Your task to perform on an android device: Open the calendar app, open the side menu, and click the "Day" option Image 0: 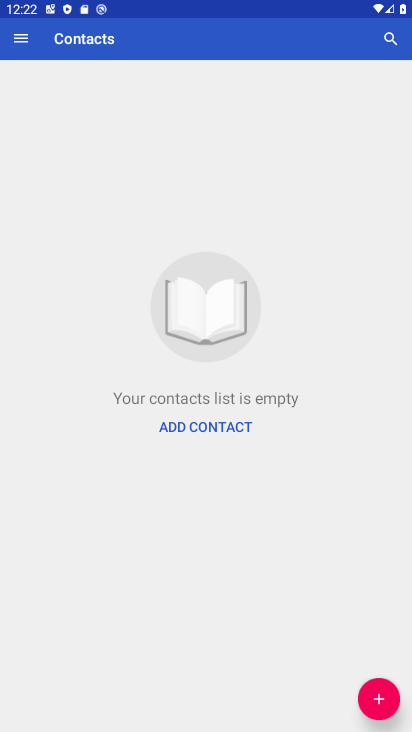
Step 0: press home button
Your task to perform on an android device: Open the calendar app, open the side menu, and click the "Day" option Image 1: 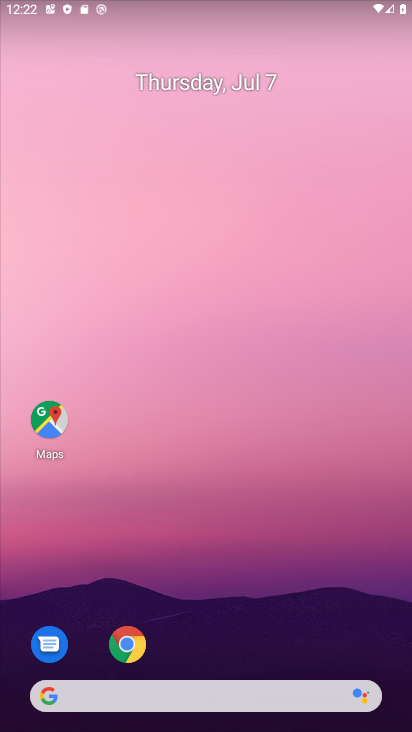
Step 1: drag from (236, 646) to (261, 151)
Your task to perform on an android device: Open the calendar app, open the side menu, and click the "Day" option Image 2: 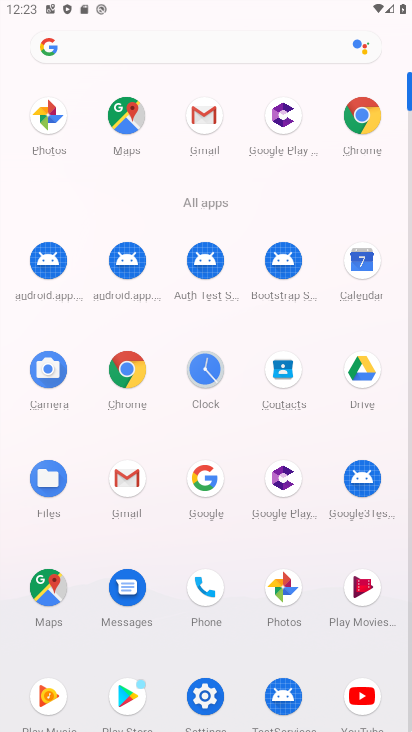
Step 2: click (367, 258)
Your task to perform on an android device: Open the calendar app, open the side menu, and click the "Day" option Image 3: 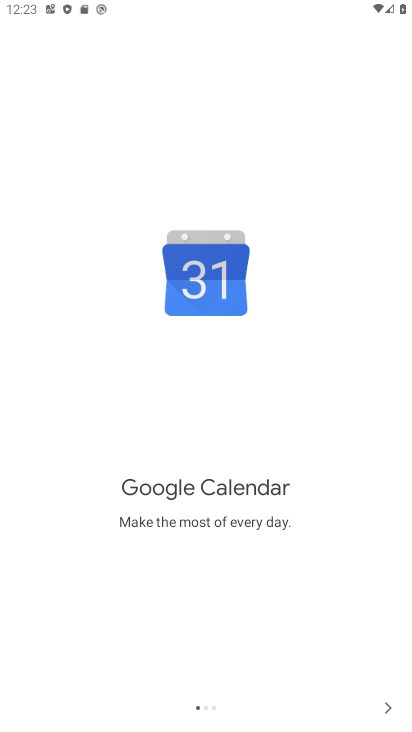
Step 3: click (382, 701)
Your task to perform on an android device: Open the calendar app, open the side menu, and click the "Day" option Image 4: 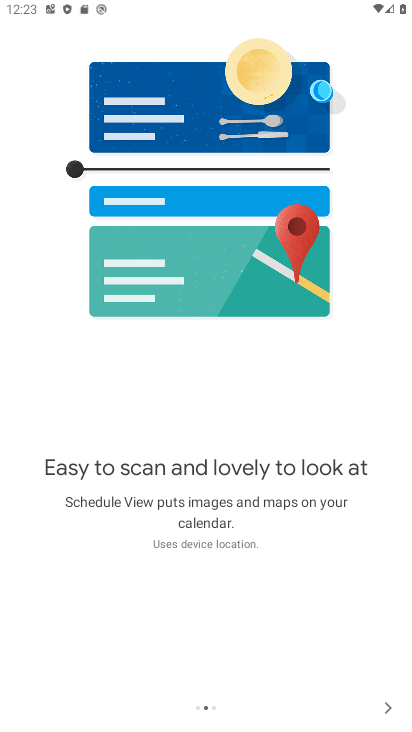
Step 4: click (382, 701)
Your task to perform on an android device: Open the calendar app, open the side menu, and click the "Day" option Image 5: 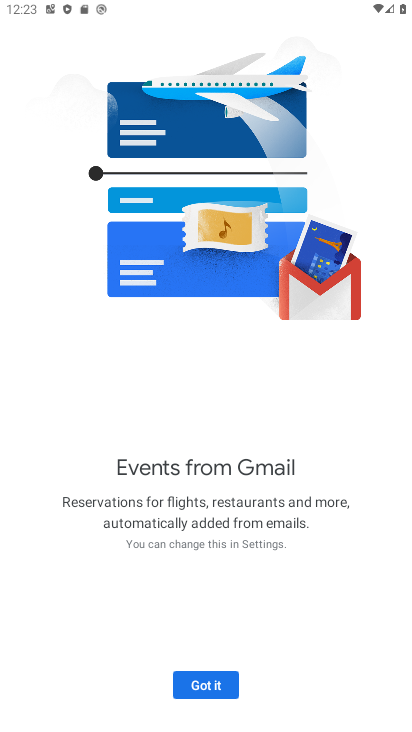
Step 5: click (227, 678)
Your task to perform on an android device: Open the calendar app, open the side menu, and click the "Day" option Image 6: 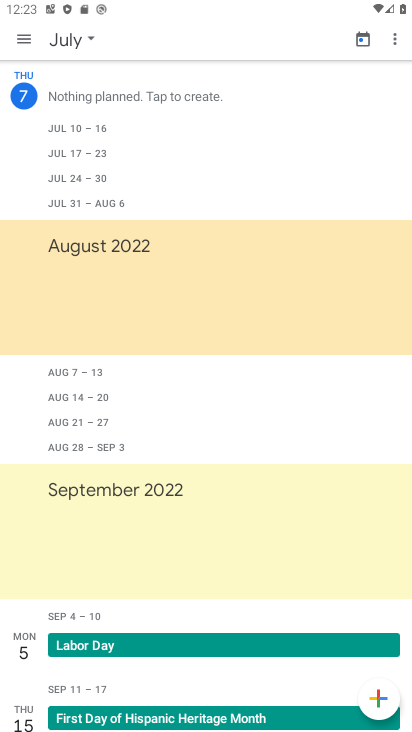
Step 6: click (24, 43)
Your task to perform on an android device: Open the calendar app, open the side menu, and click the "Day" option Image 7: 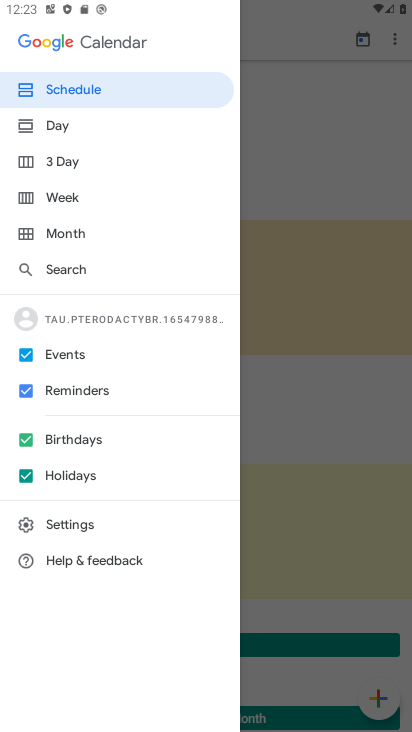
Step 7: click (47, 119)
Your task to perform on an android device: Open the calendar app, open the side menu, and click the "Day" option Image 8: 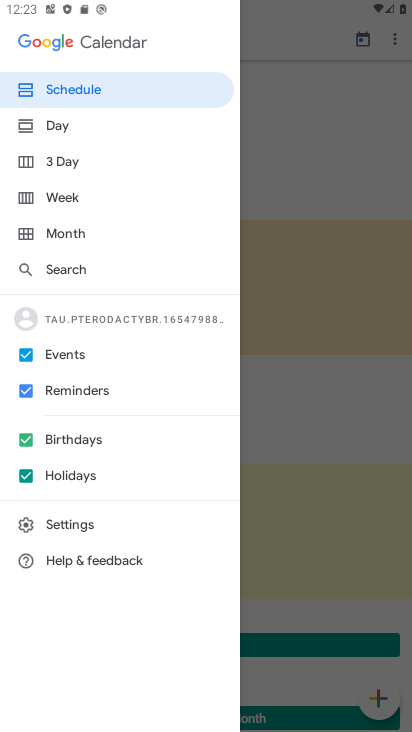
Step 8: click (46, 123)
Your task to perform on an android device: Open the calendar app, open the side menu, and click the "Day" option Image 9: 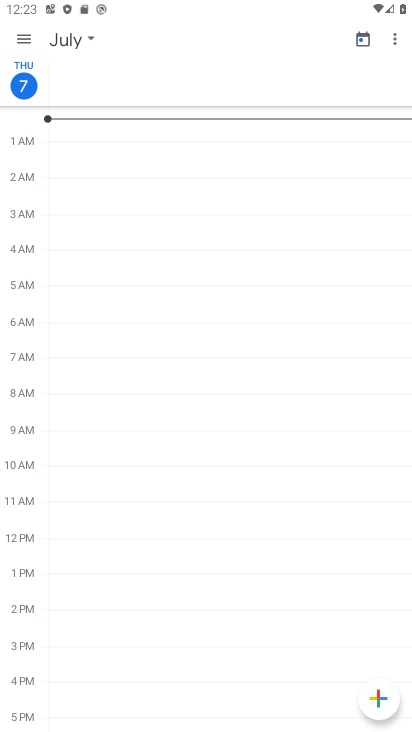
Step 9: task complete